Your task to perform on an android device: Open Android settings Image 0: 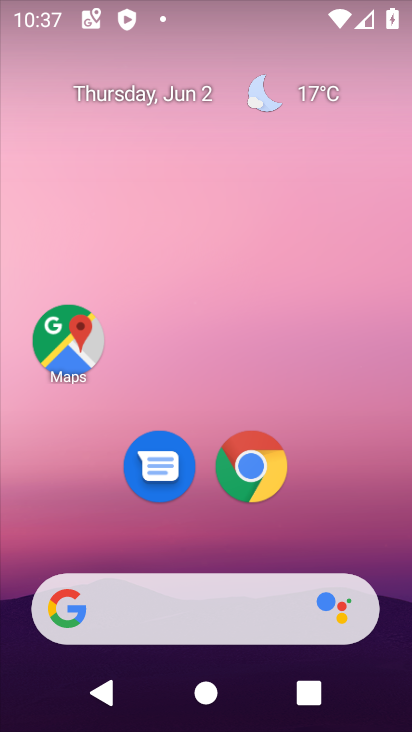
Step 0: drag from (257, 513) to (261, 202)
Your task to perform on an android device: Open Android settings Image 1: 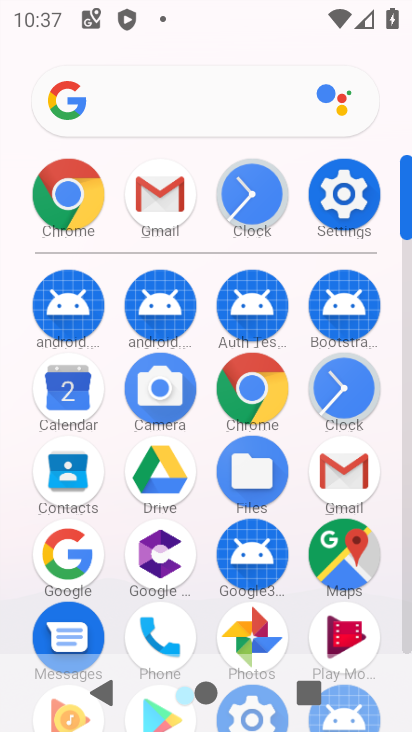
Step 1: click (342, 192)
Your task to perform on an android device: Open Android settings Image 2: 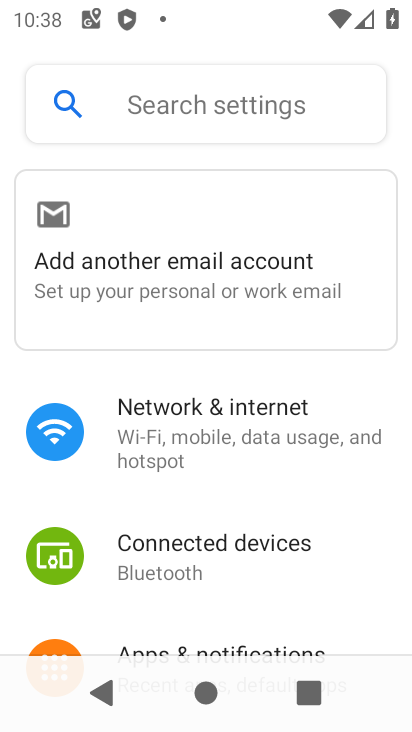
Step 2: task complete